Your task to perform on an android device: move a message to another label in the gmail app Image 0: 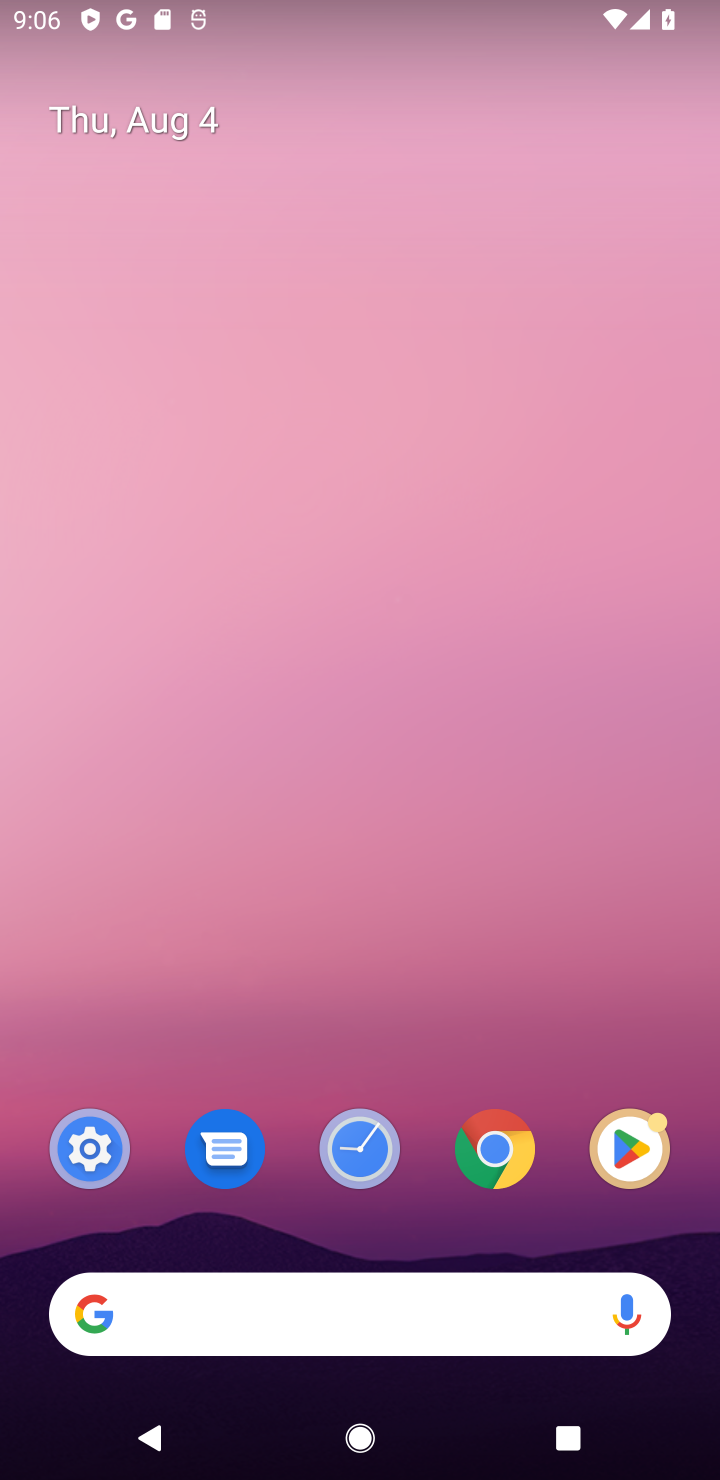
Step 0: drag from (691, 1248) to (642, 420)
Your task to perform on an android device: move a message to another label in the gmail app Image 1: 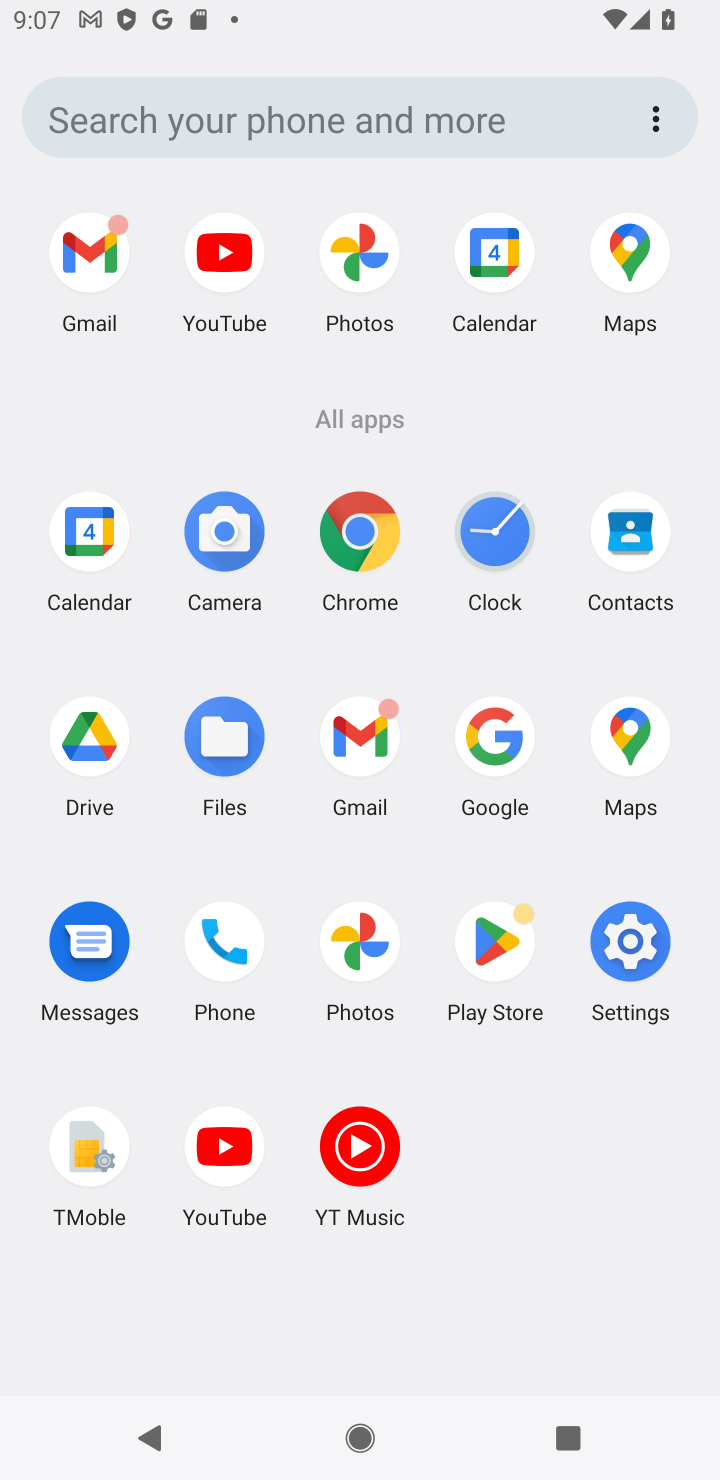
Step 1: click (355, 732)
Your task to perform on an android device: move a message to another label in the gmail app Image 2: 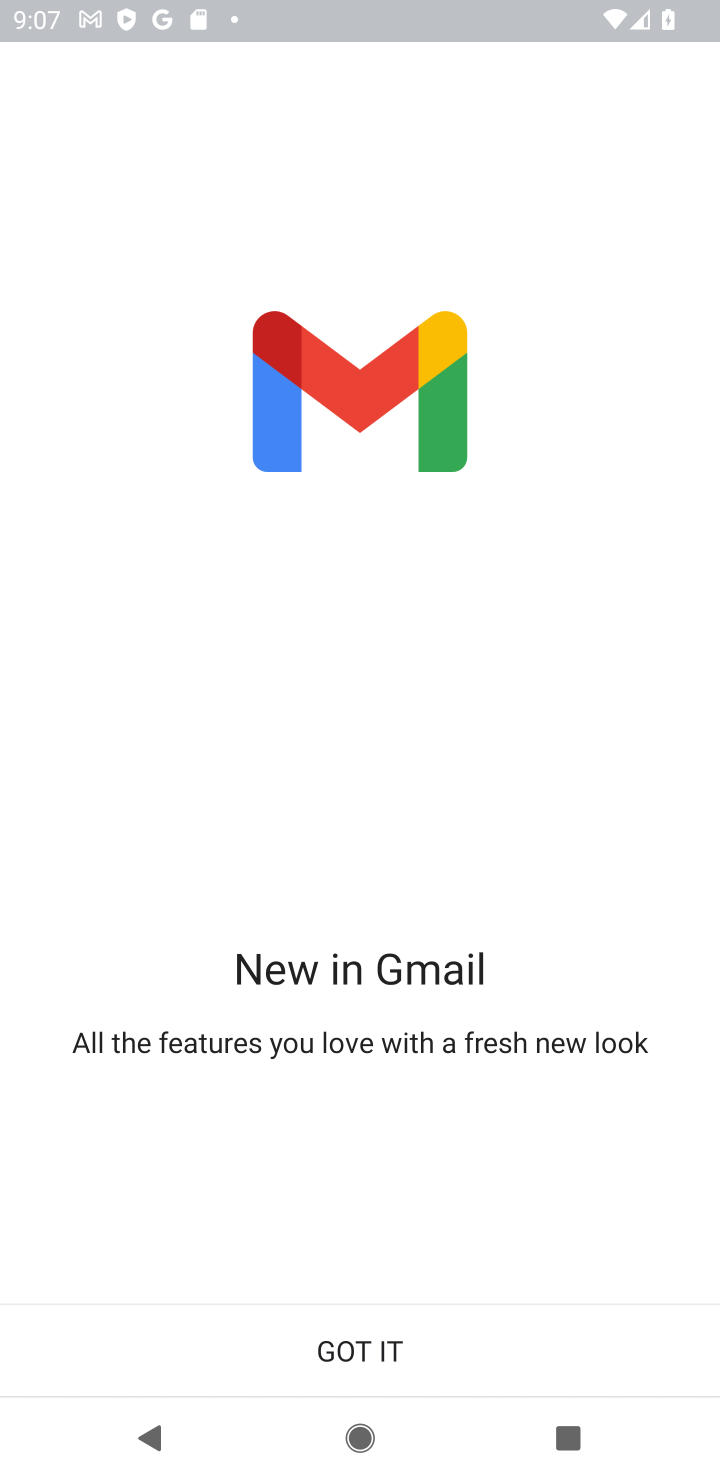
Step 2: click (360, 1347)
Your task to perform on an android device: move a message to another label in the gmail app Image 3: 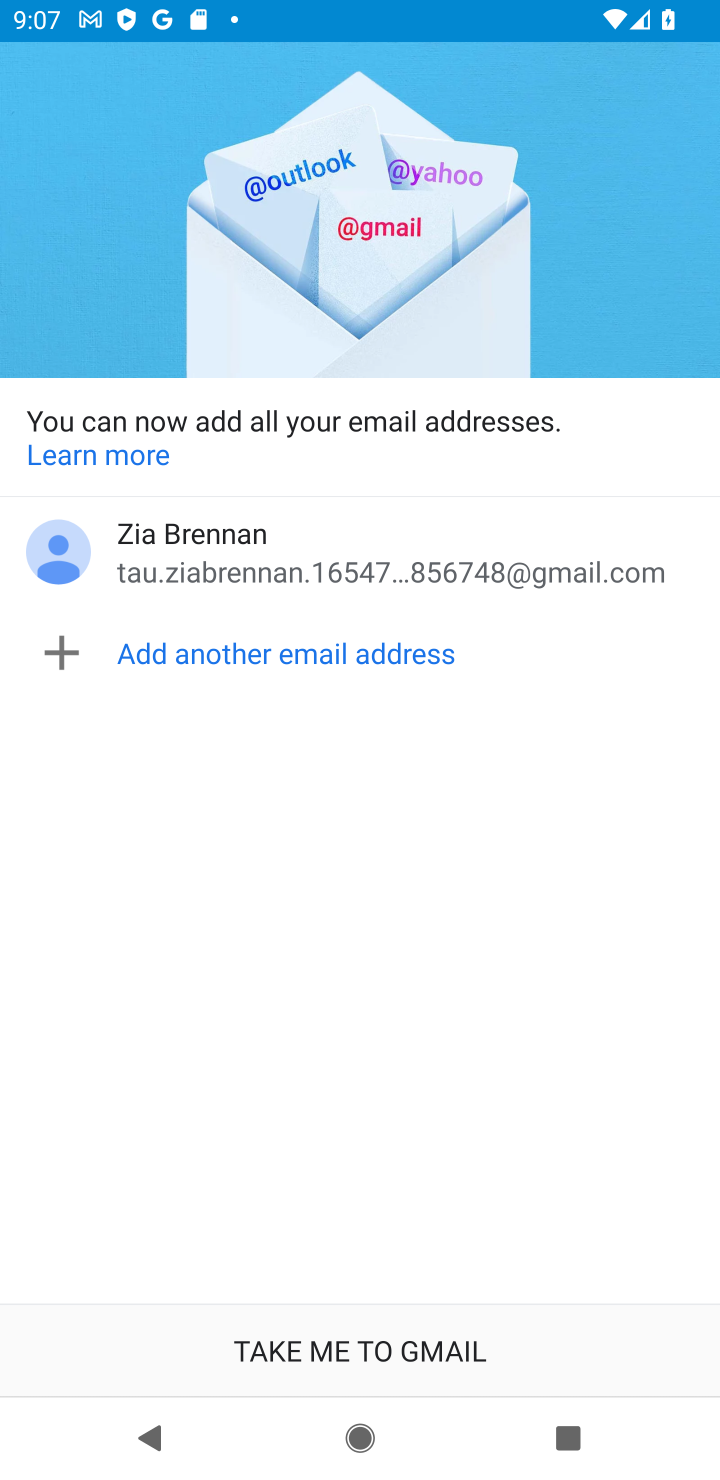
Step 3: click (360, 1347)
Your task to perform on an android device: move a message to another label in the gmail app Image 4: 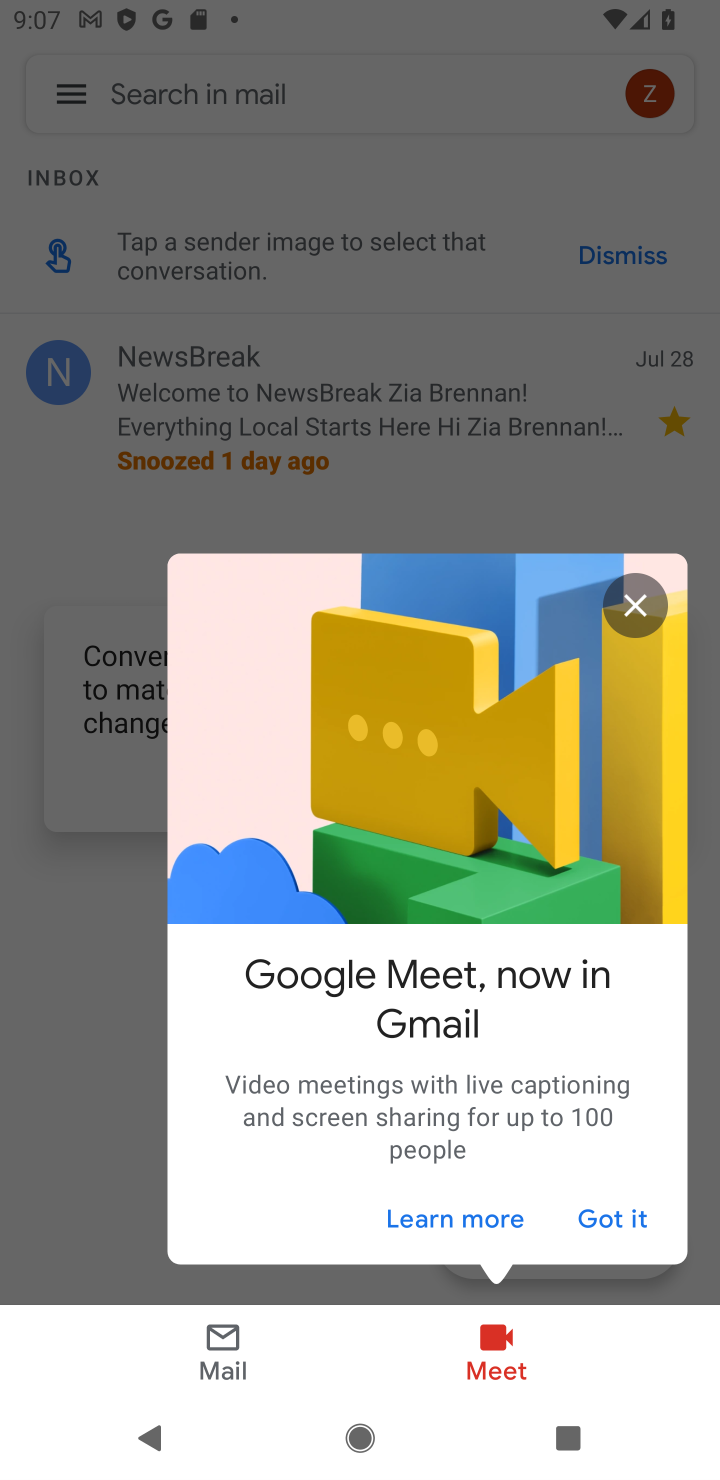
Step 4: click (605, 1215)
Your task to perform on an android device: move a message to another label in the gmail app Image 5: 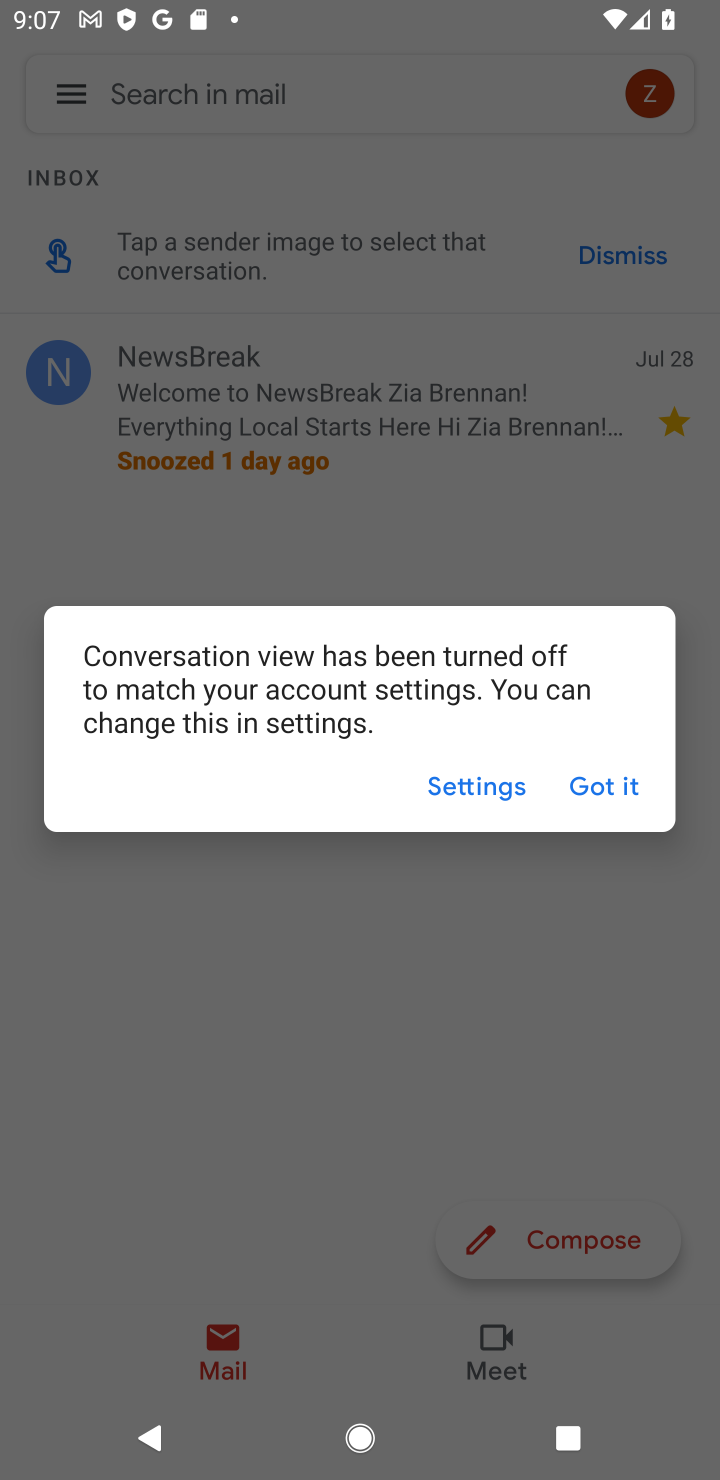
Step 5: click (603, 771)
Your task to perform on an android device: move a message to another label in the gmail app Image 6: 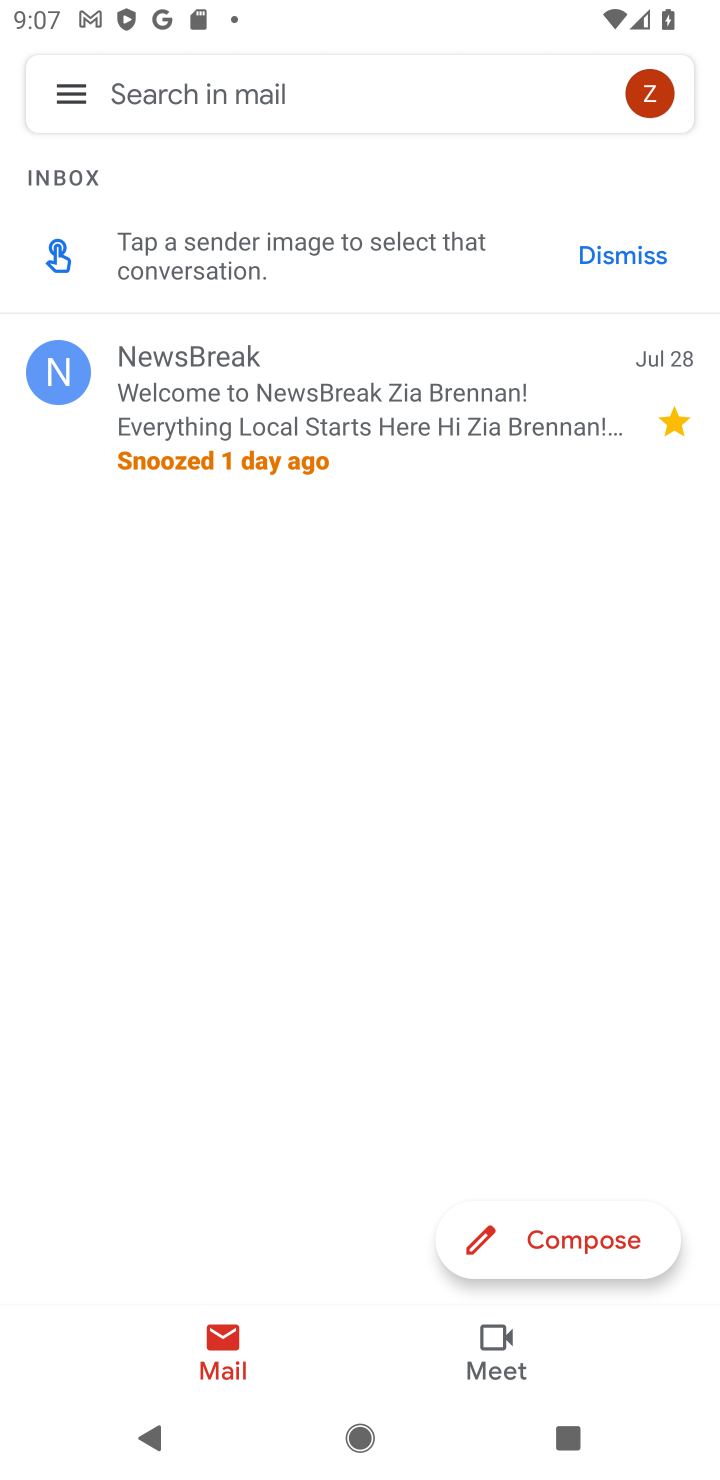
Step 6: click (66, 96)
Your task to perform on an android device: move a message to another label in the gmail app Image 7: 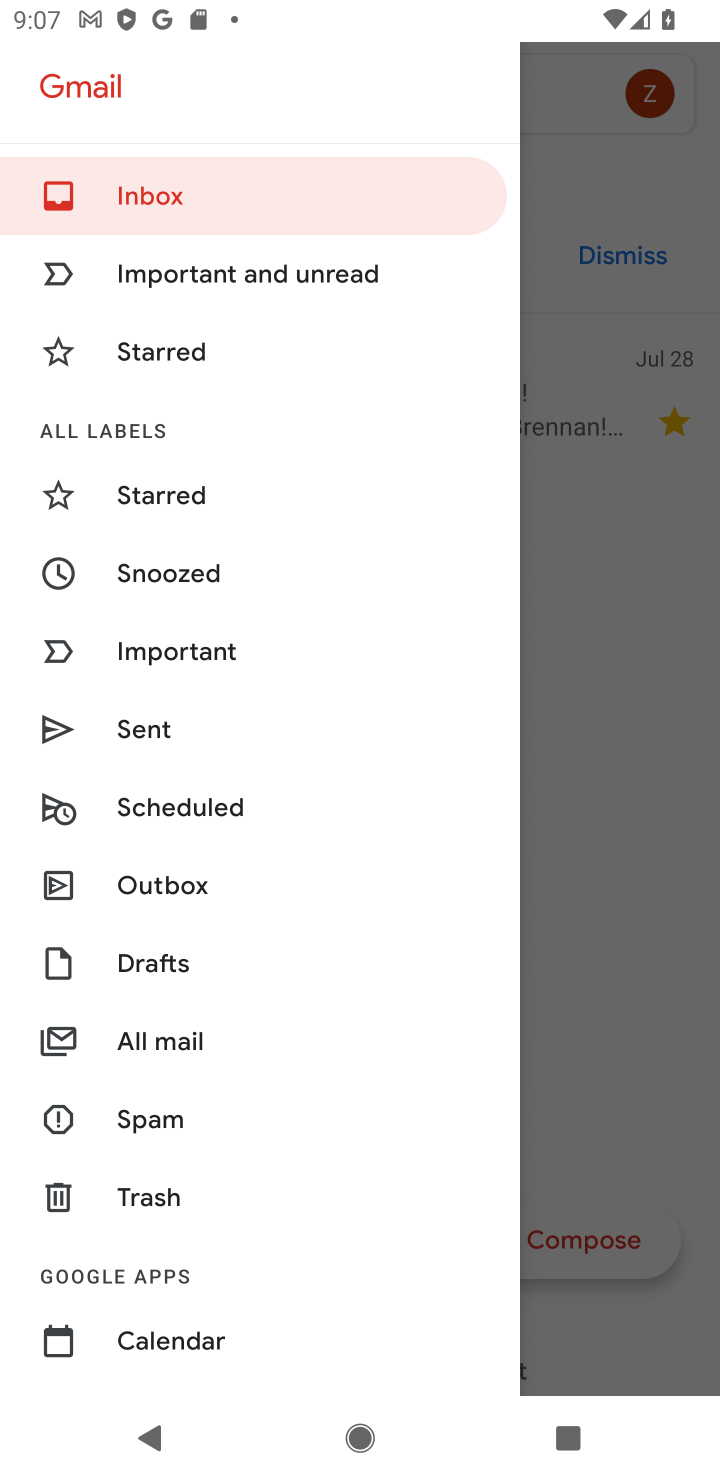
Step 7: click (182, 1032)
Your task to perform on an android device: move a message to another label in the gmail app Image 8: 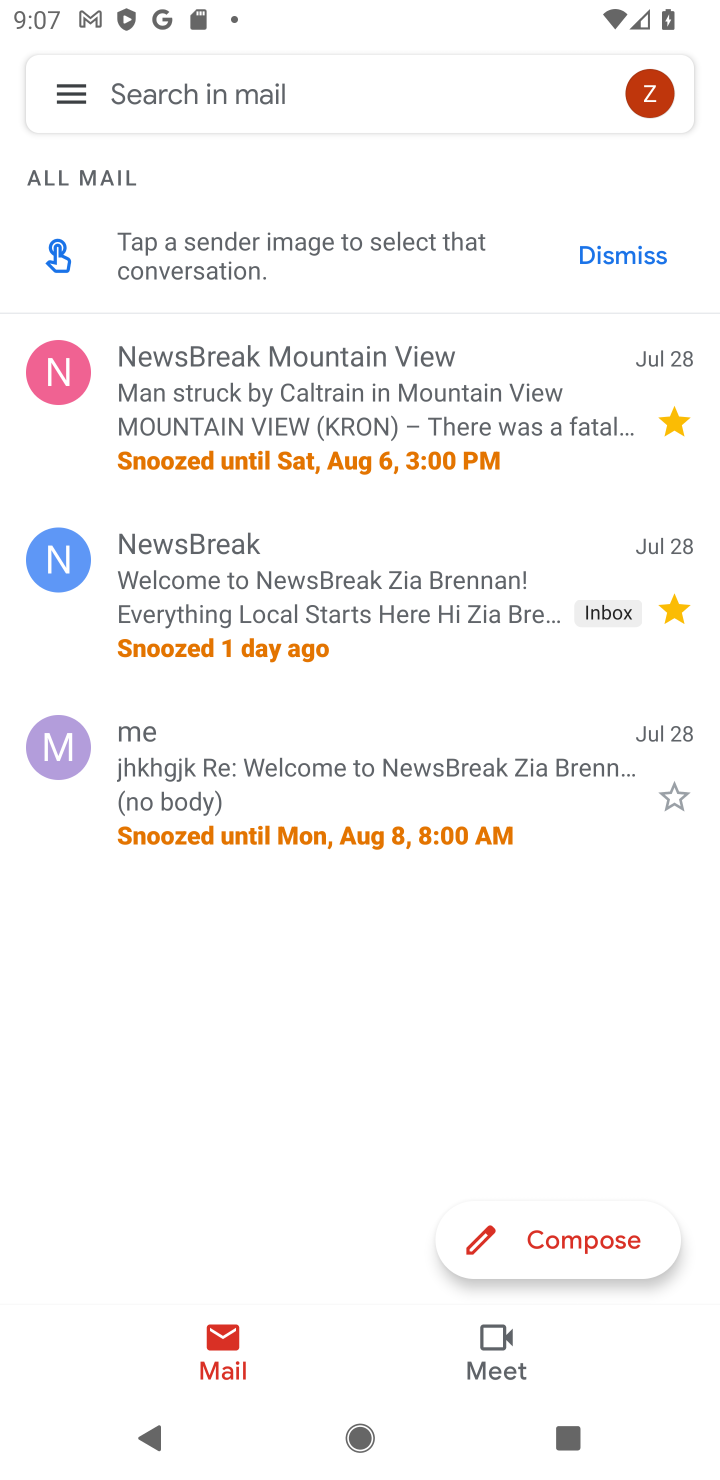
Step 8: click (416, 382)
Your task to perform on an android device: move a message to another label in the gmail app Image 9: 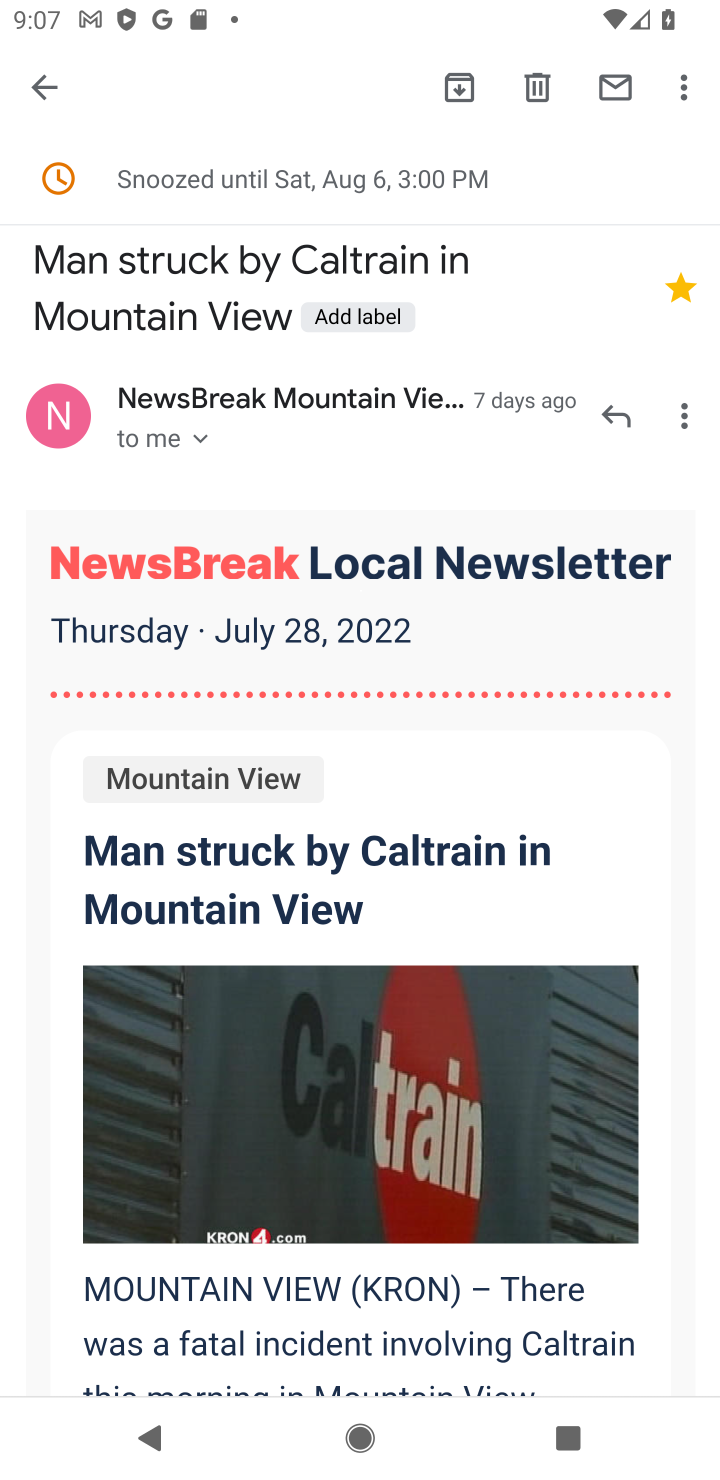
Step 9: click (677, 96)
Your task to perform on an android device: move a message to another label in the gmail app Image 10: 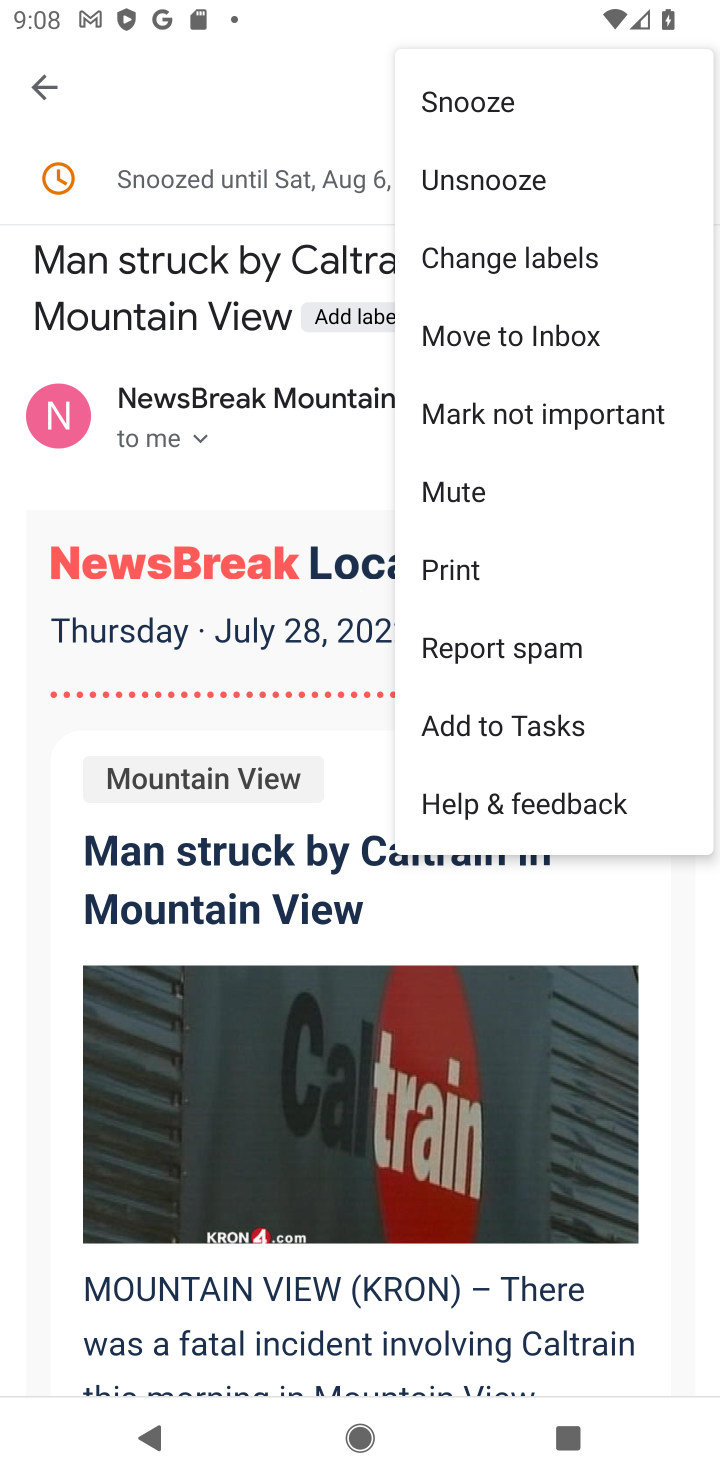
Step 10: click (488, 336)
Your task to perform on an android device: move a message to another label in the gmail app Image 11: 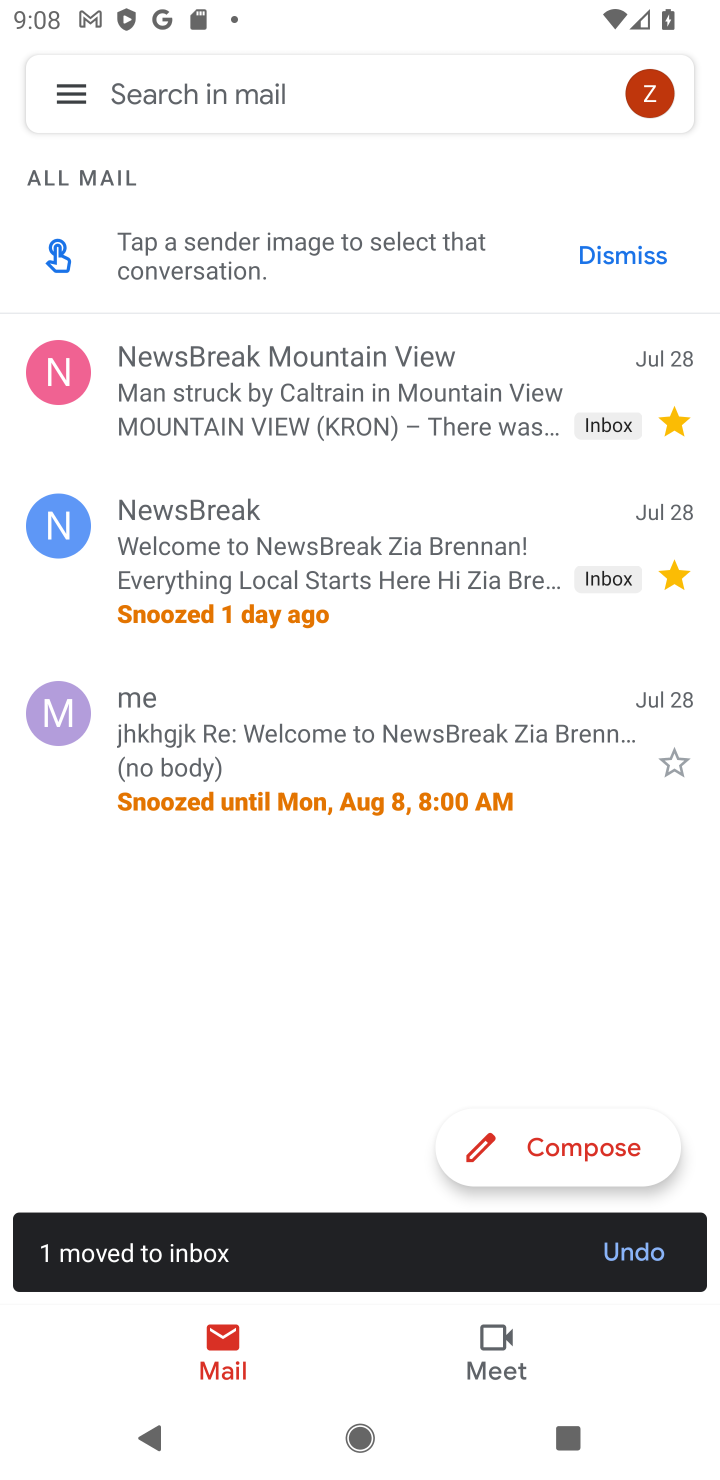
Step 11: task complete